Your task to perform on an android device: turn off translation in the chrome app Image 0: 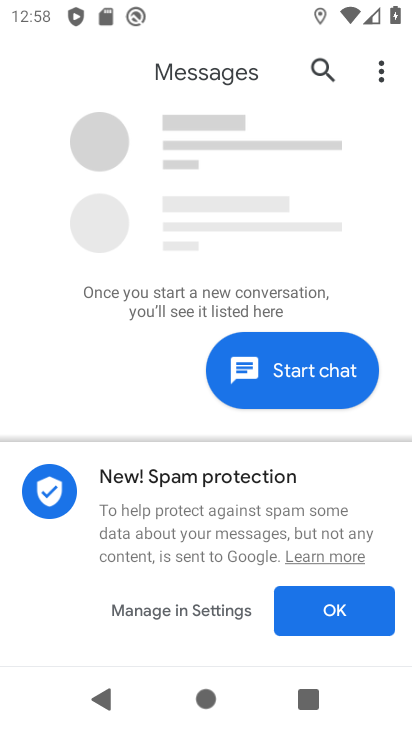
Step 0: press home button
Your task to perform on an android device: turn off translation in the chrome app Image 1: 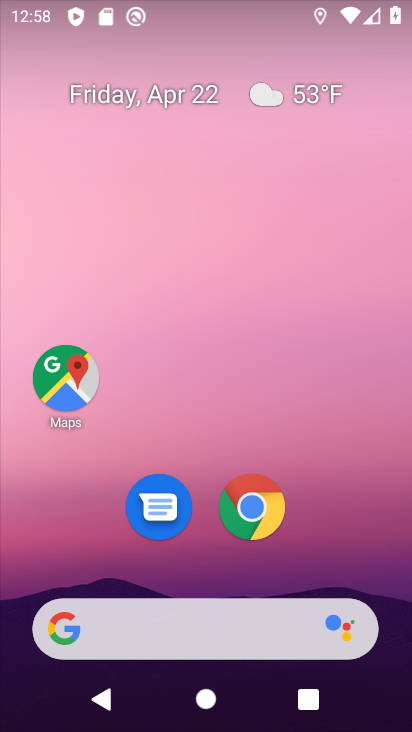
Step 1: click (259, 511)
Your task to perform on an android device: turn off translation in the chrome app Image 2: 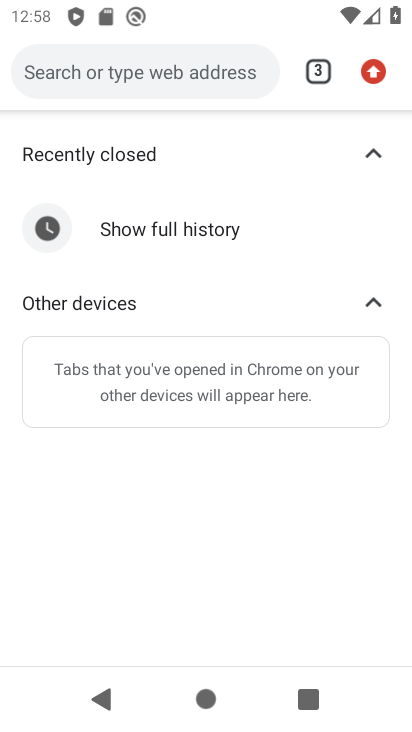
Step 2: drag from (374, 75) to (117, 502)
Your task to perform on an android device: turn off translation in the chrome app Image 3: 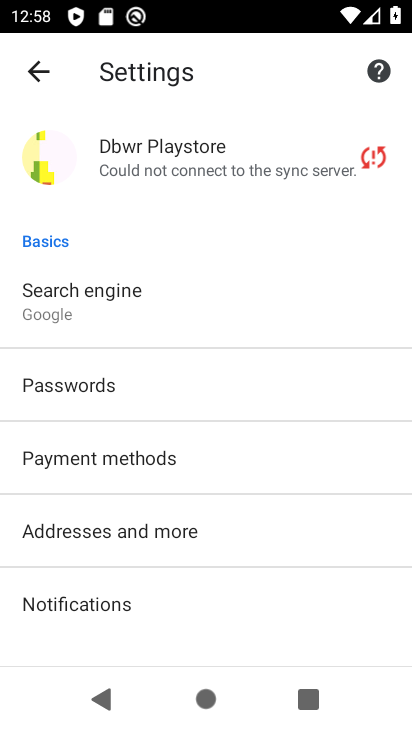
Step 3: drag from (177, 639) to (174, 254)
Your task to perform on an android device: turn off translation in the chrome app Image 4: 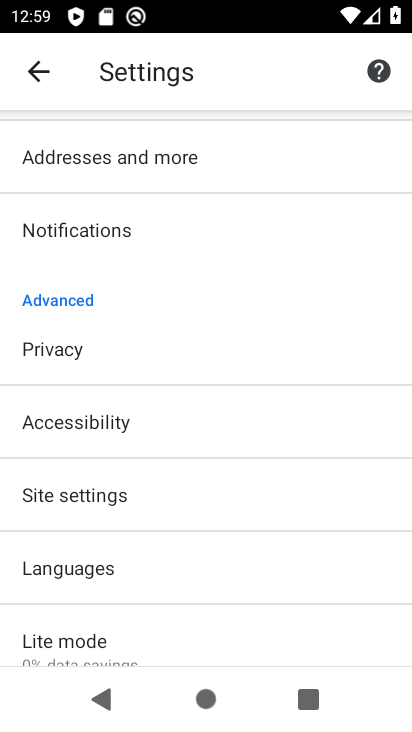
Step 4: click (88, 572)
Your task to perform on an android device: turn off translation in the chrome app Image 5: 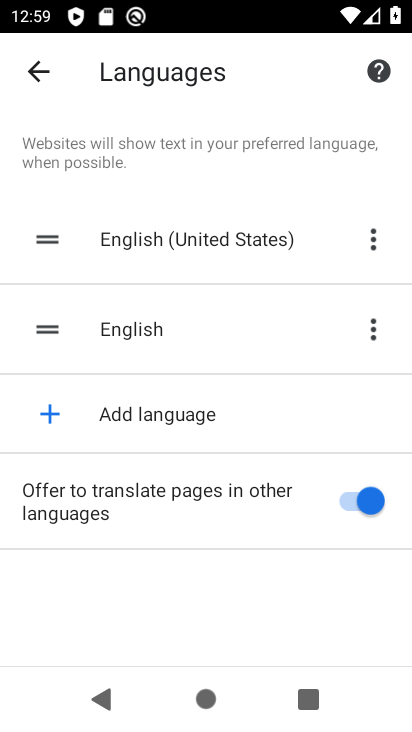
Step 5: click (348, 491)
Your task to perform on an android device: turn off translation in the chrome app Image 6: 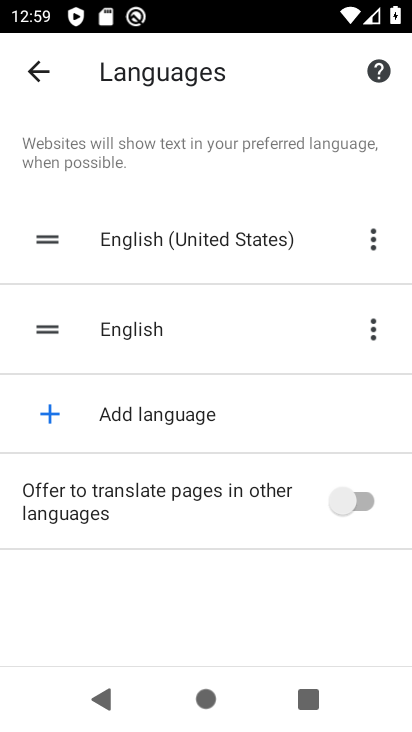
Step 6: task complete